Your task to perform on an android device: change alarm snooze length Image 0: 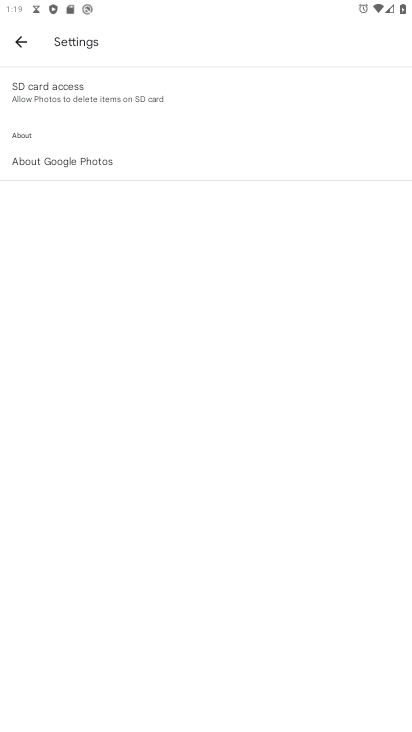
Step 0: press home button
Your task to perform on an android device: change alarm snooze length Image 1: 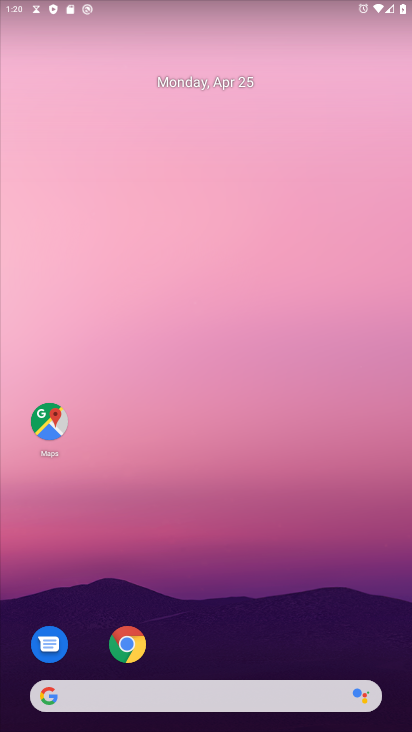
Step 1: click (410, 506)
Your task to perform on an android device: change alarm snooze length Image 2: 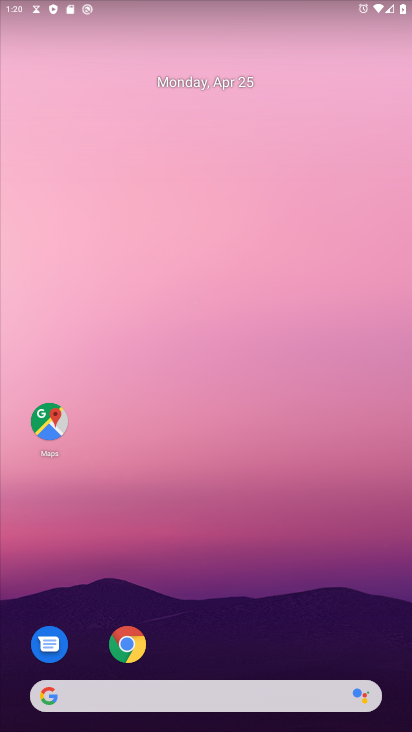
Step 2: drag from (358, 650) to (373, 108)
Your task to perform on an android device: change alarm snooze length Image 3: 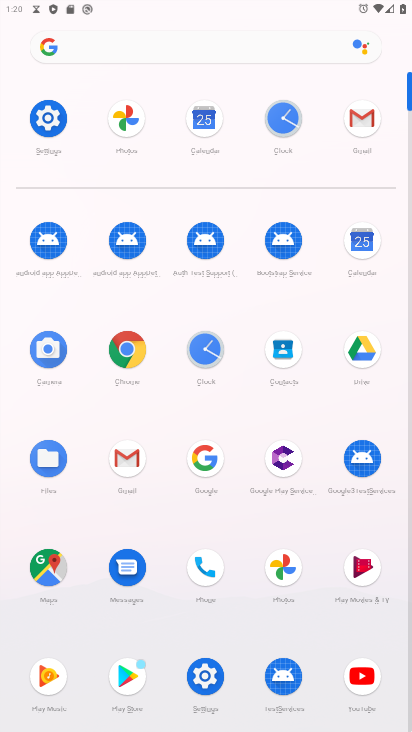
Step 3: click (279, 126)
Your task to perform on an android device: change alarm snooze length Image 4: 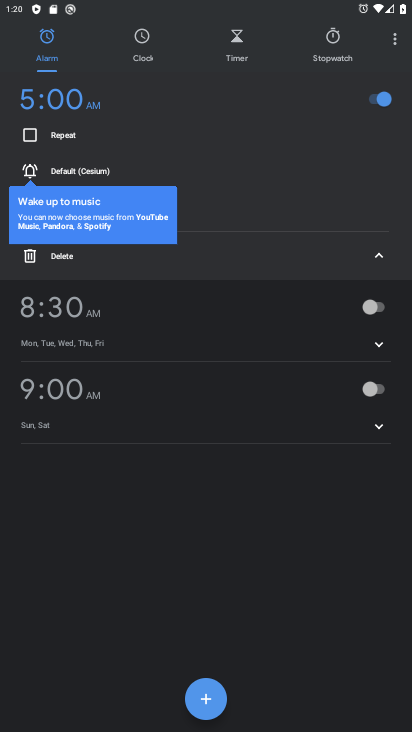
Step 4: click (393, 39)
Your task to perform on an android device: change alarm snooze length Image 5: 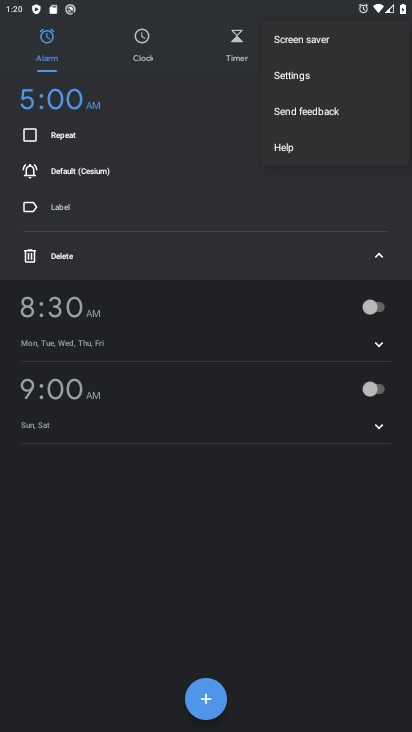
Step 5: click (307, 82)
Your task to perform on an android device: change alarm snooze length Image 6: 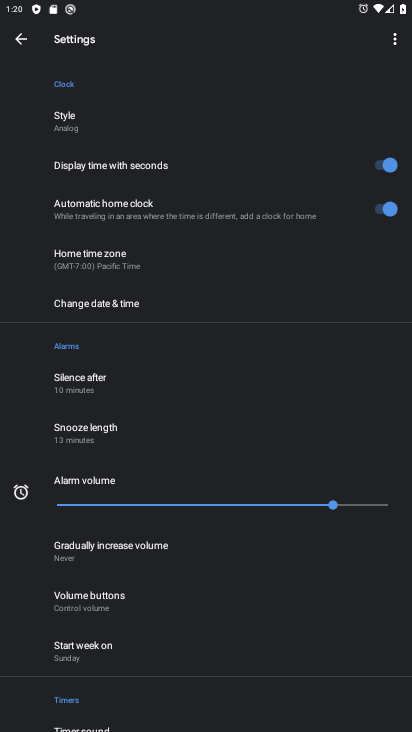
Step 6: click (85, 433)
Your task to perform on an android device: change alarm snooze length Image 7: 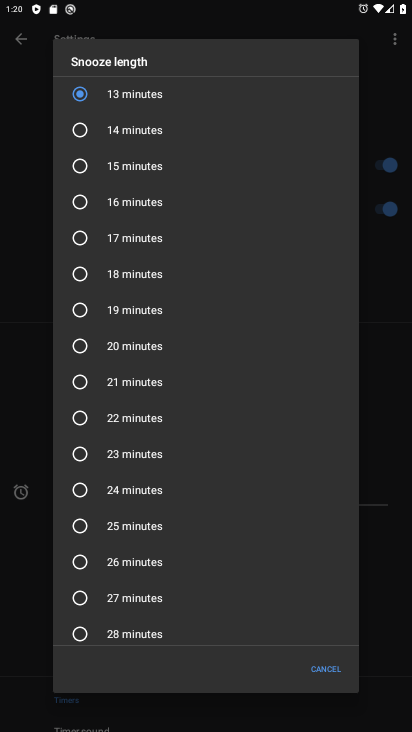
Step 7: click (79, 168)
Your task to perform on an android device: change alarm snooze length Image 8: 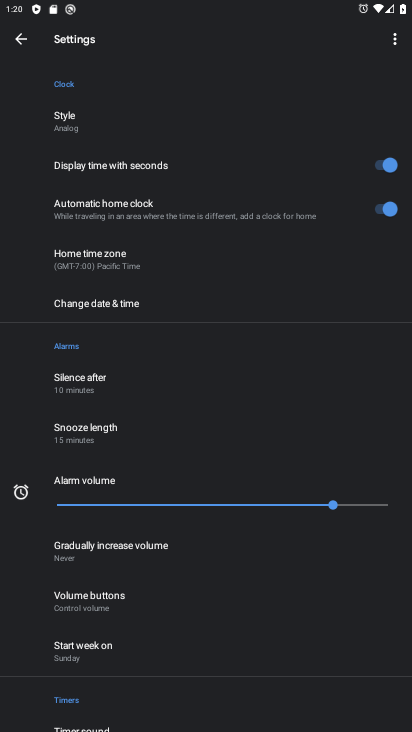
Step 8: task complete